Your task to perform on an android device: set an alarm Image 0: 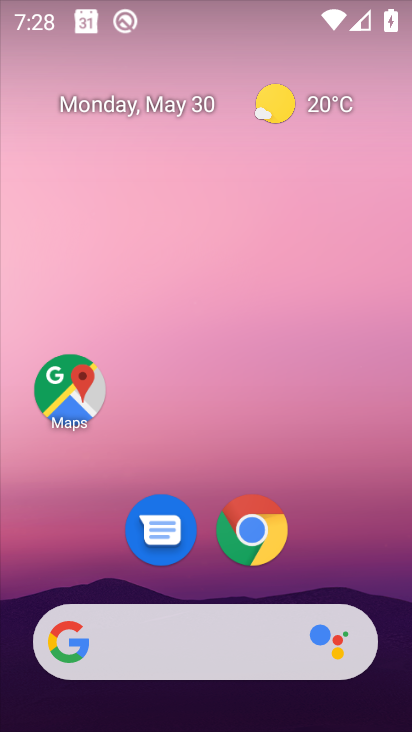
Step 0: click (245, 542)
Your task to perform on an android device: set an alarm Image 1: 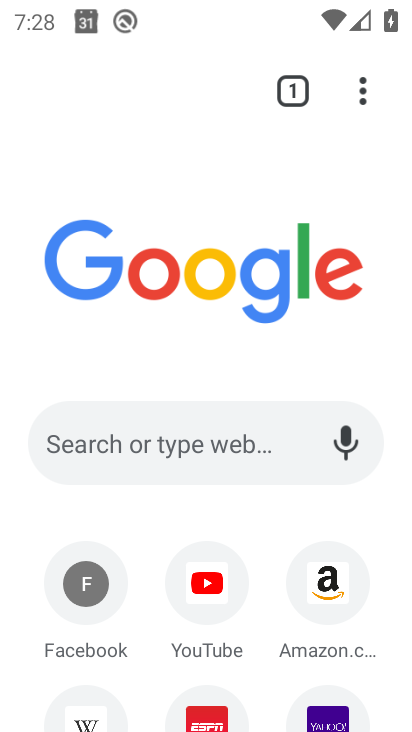
Step 1: click (363, 99)
Your task to perform on an android device: set an alarm Image 2: 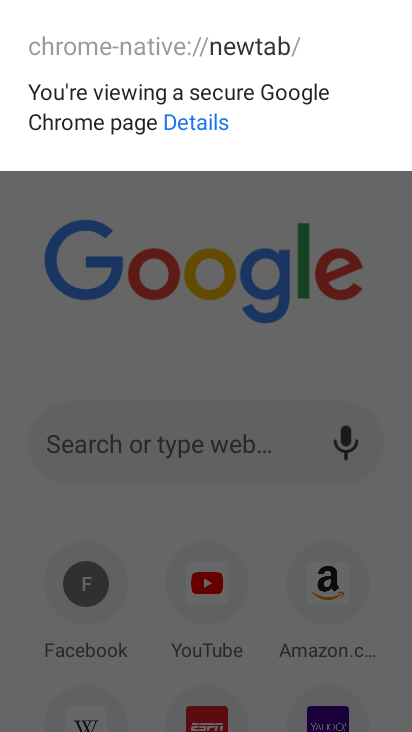
Step 2: press back button
Your task to perform on an android device: set an alarm Image 3: 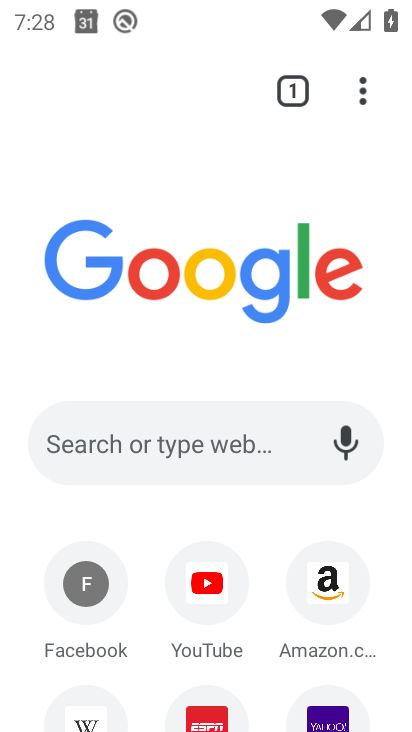
Step 3: click (354, 93)
Your task to perform on an android device: set an alarm Image 4: 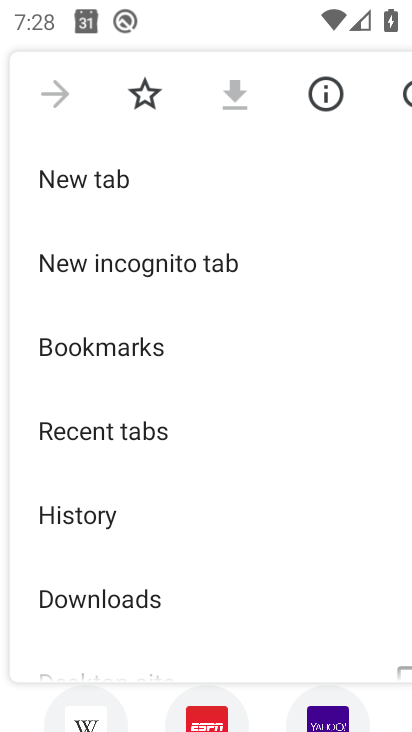
Step 4: drag from (59, 633) to (221, 132)
Your task to perform on an android device: set an alarm Image 5: 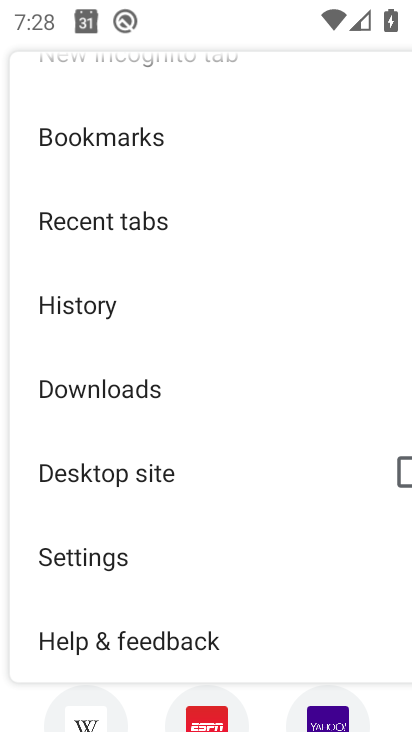
Step 5: click (101, 552)
Your task to perform on an android device: set an alarm Image 6: 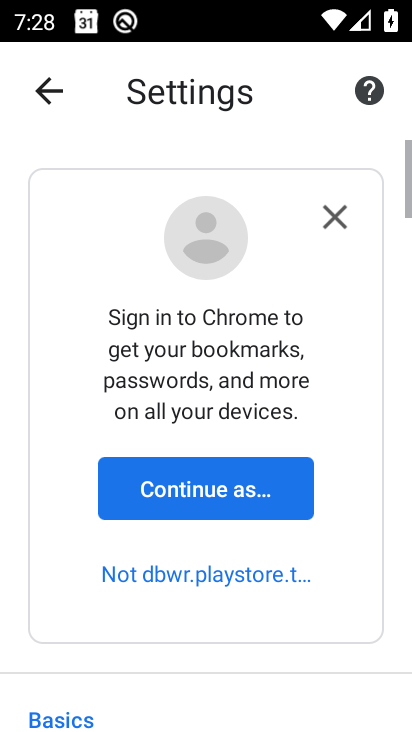
Step 6: click (349, 218)
Your task to perform on an android device: set an alarm Image 7: 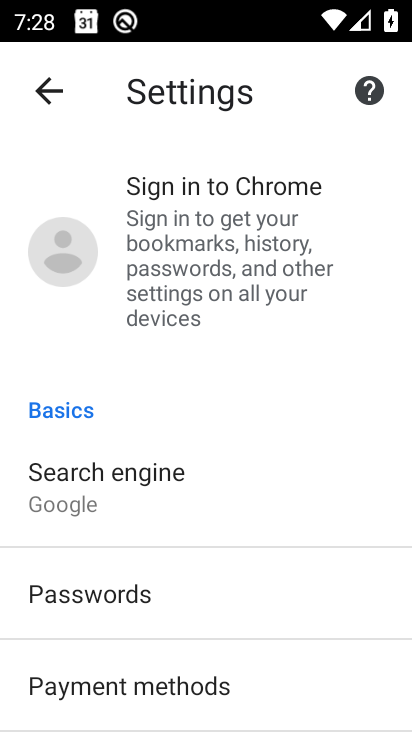
Step 7: drag from (4, 583) to (177, 190)
Your task to perform on an android device: set an alarm Image 8: 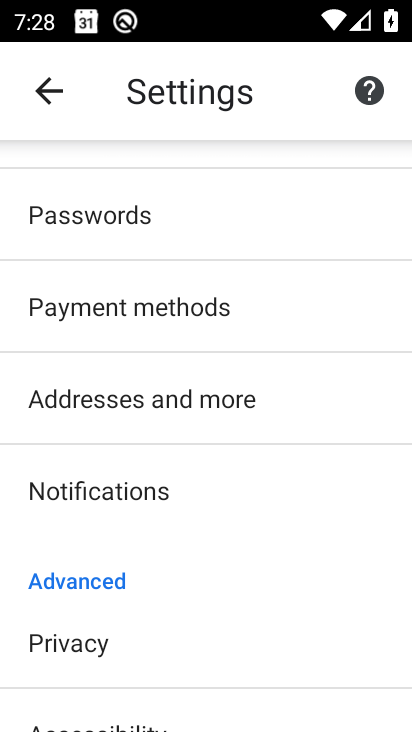
Step 8: drag from (33, 529) to (203, 181)
Your task to perform on an android device: set an alarm Image 9: 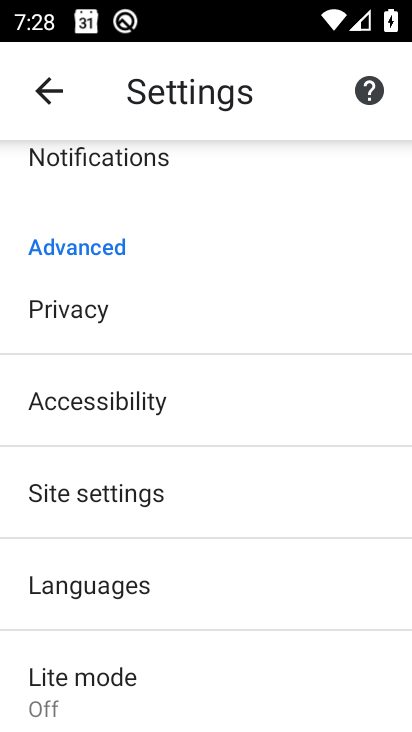
Step 9: click (103, 495)
Your task to perform on an android device: set an alarm Image 10: 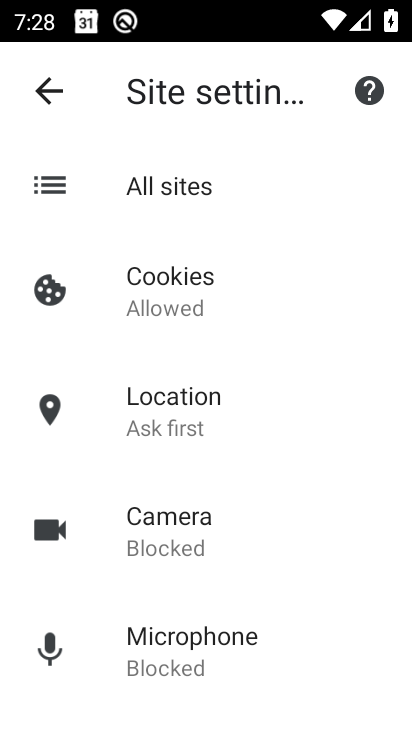
Step 10: click (148, 286)
Your task to perform on an android device: set an alarm Image 11: 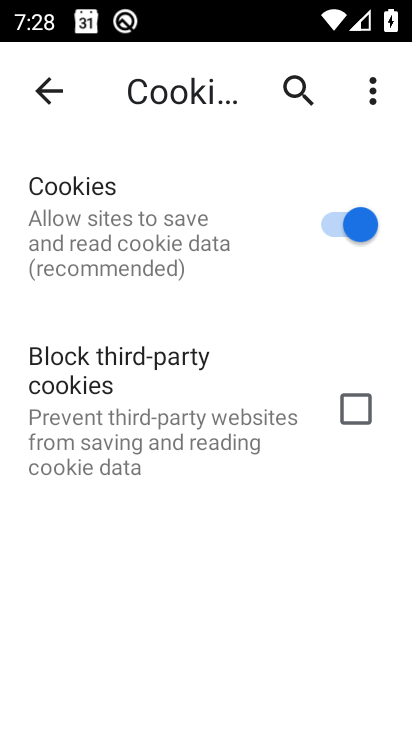
Step 11: task complete